Your task to perform on an android device: turn pop-ups off in chrome Image 0: 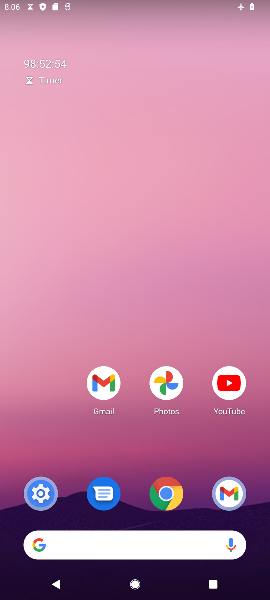
Step 0: drag from (96, 484) to (145, 66)
Your task to perform on an android device: turn pop-ups off in chrome Image 1: 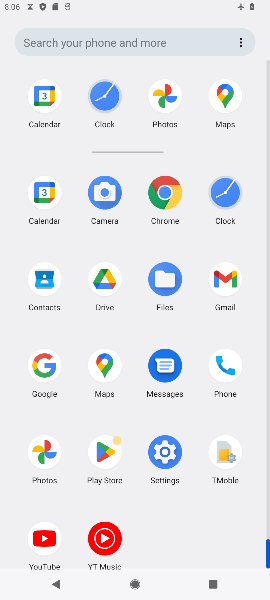
Step 1: click (161, 187)
Your task to perform on an android device: turn pop-ups off in chrome Image 2: 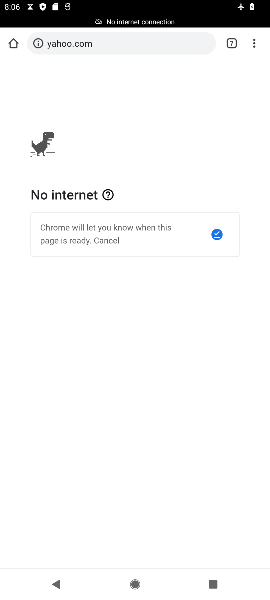
Step 2: click (253, 40)
Your task to perform on an android device: turn pop-ups off in chrome Image 3: 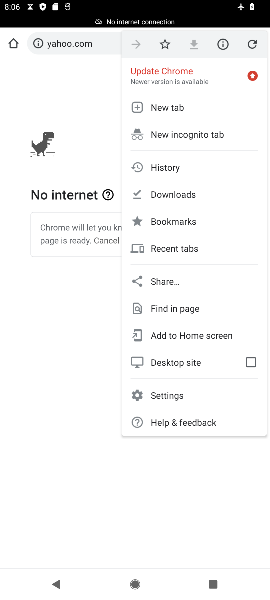
Step 3: click (173, 391)
Your task to perform on an android device: turn pop-ups off in chrome Image 4: 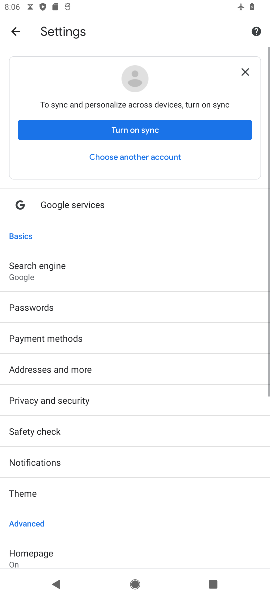
Step 4: drag from (61, 541) to (96, 203)
Your task to perform on an android device: turn pop-ups off in chrome Image 5: 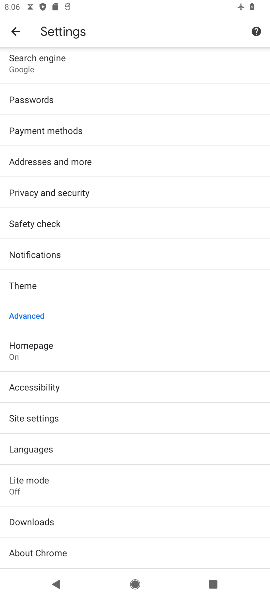
Step 5: drag from (51, 549) to (89, 379)
Your task to perform on an android device: turn pop-ups off in chrome Image 6: 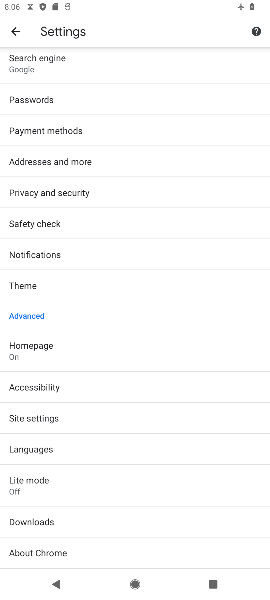
Step 6: click (36, 417)
Your task to perform on an android device: turn pop-ups off in chrome Image 7: 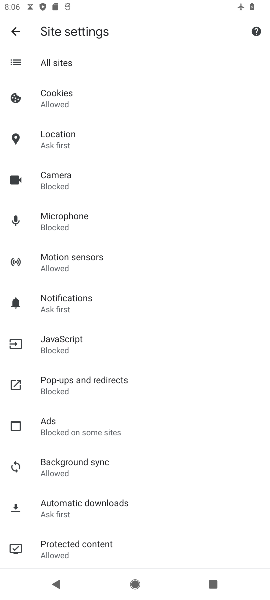
Step 7: click (88, 373)
Your task to perform on an android device: turn pop-ups off in chrome Image 8: 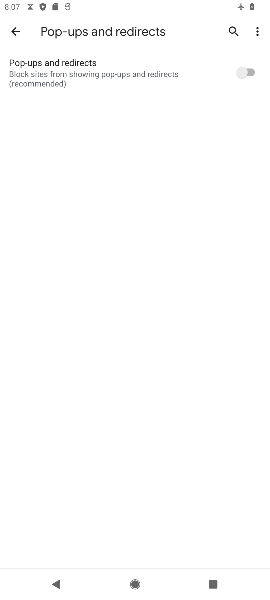
Step 8: task complete